Your task to perform on an android device: Open Google Chrome and open the bookmarks view Image 0: 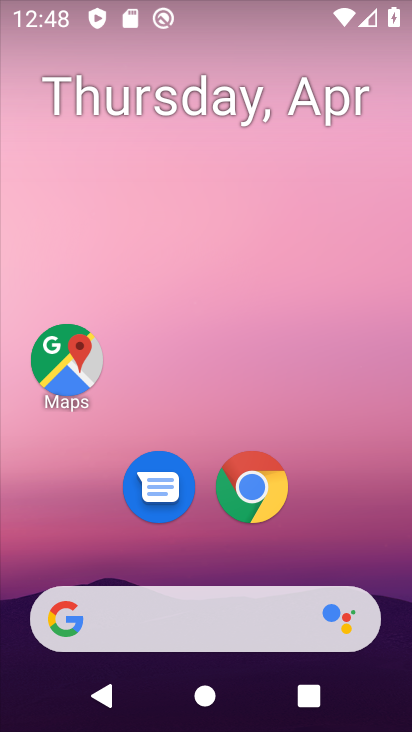
Step 0: click (324, 197)
Your task to perform on an android device: Open Google Chrome and open the bookmarks view Image 1: 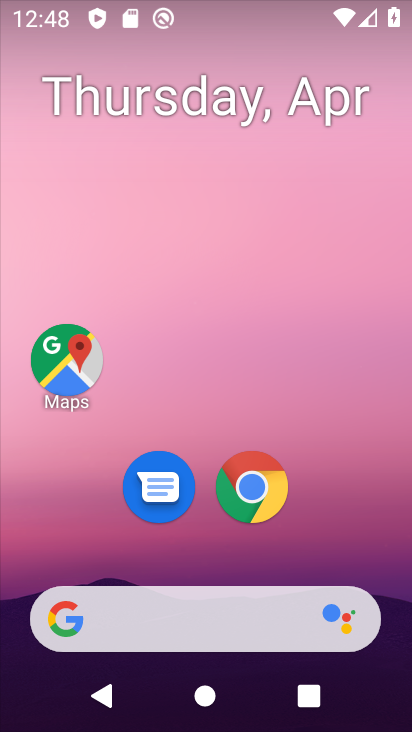
Step 1: drag from (343, 516) to (322, 192)
Your task to perform on an android device: Open Google Chrome and open the bookmarks view Image 2: 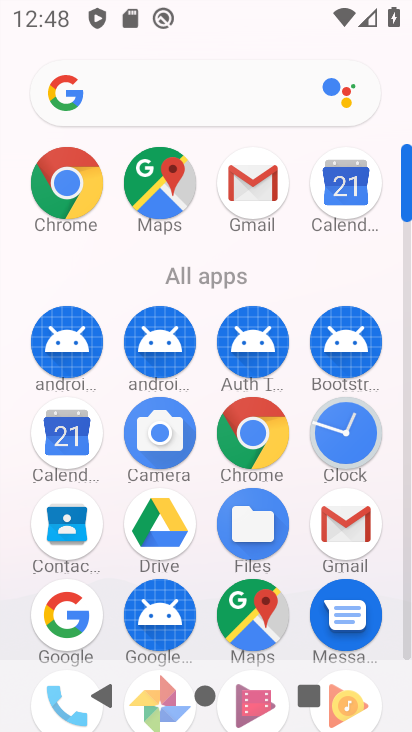
Step 2: click (259, 436)
Your task to perform on an android device: Open Google Chrome and open the bookmarks view Image 3: 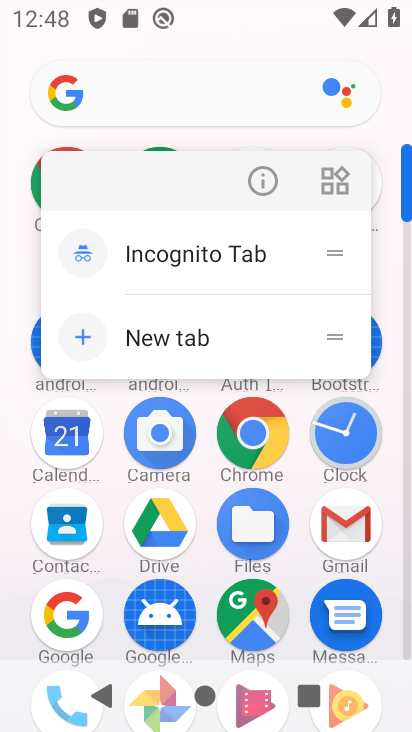
Step 3: click (260, 444)
Your task to perform on an android device: Open Google Chrome and open the bookmarks view Image 4: 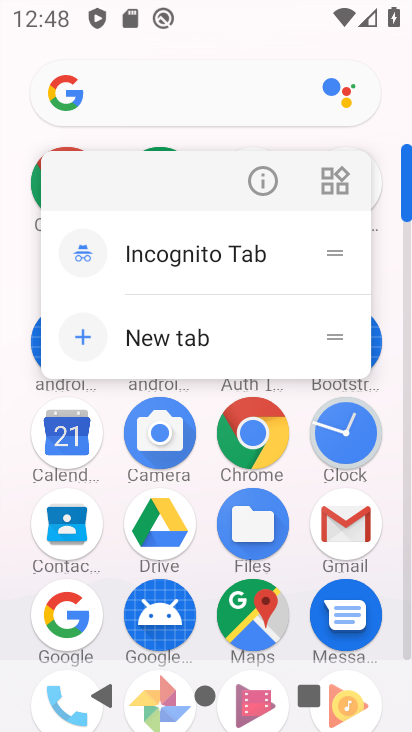
Step 4: click (263, 446)
Your task to perform on an android device: Open Google Chrome and open the bookmarks view Image 5: 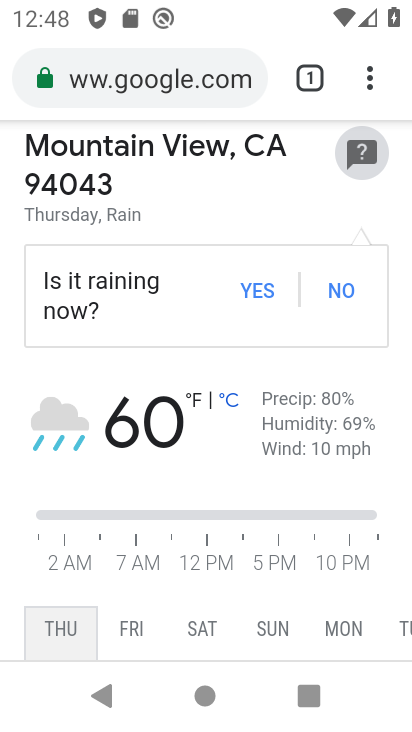
Step 5: task complete